Your task to perform on an android device: Show me recent news Image 0: 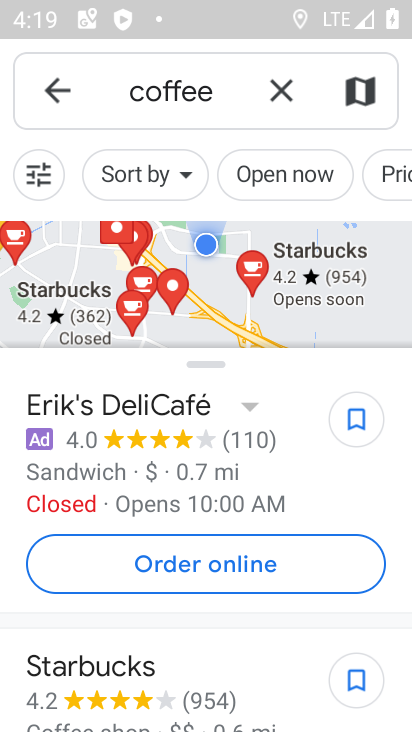
Step 0: press home button
Your task to perform on an android device: Show me recent news Image 1: 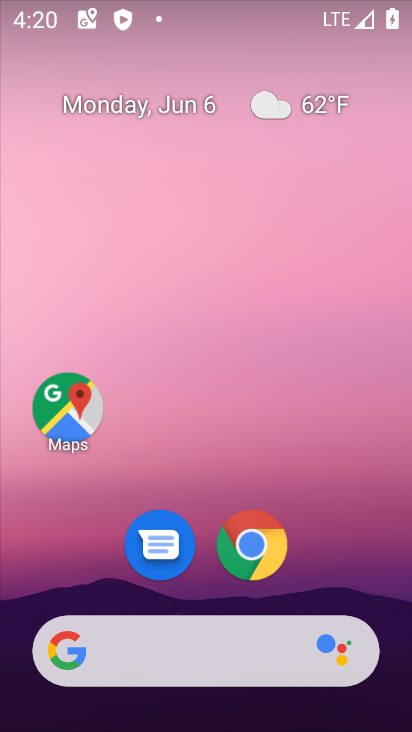
Step 1: task complete